Your task to perform on an android device: Open notification settings Image 0: 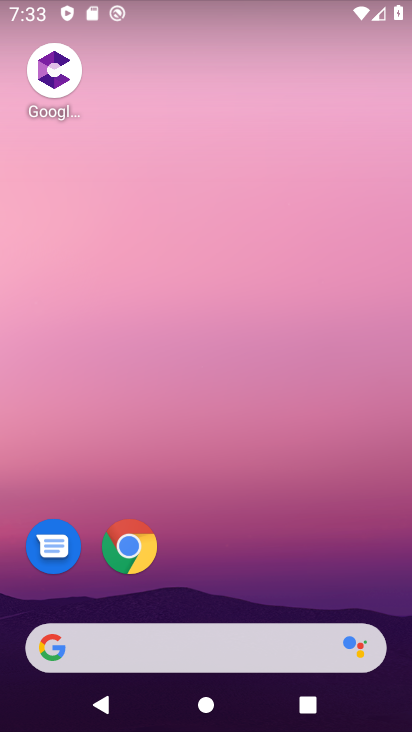
Step 0: drag from (178, 539) to (179, 414)
Your task to perform on an android device: Open notification settings Image 1: 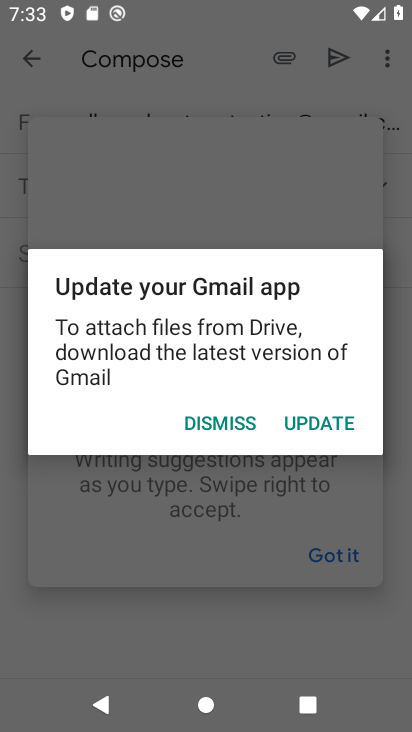
Step 1: drag from (272, 540) to (282, 30)
Your task to perform on an android device: Open notification settings Image 2: 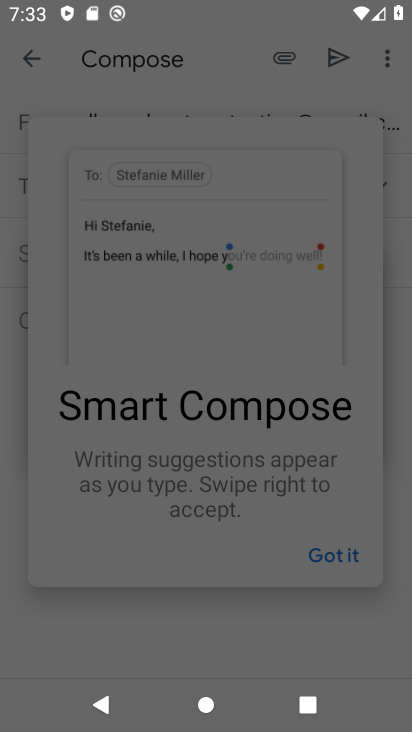
Step 2: press home button
Your task to perform on an android device: Open notification settings Image 3: 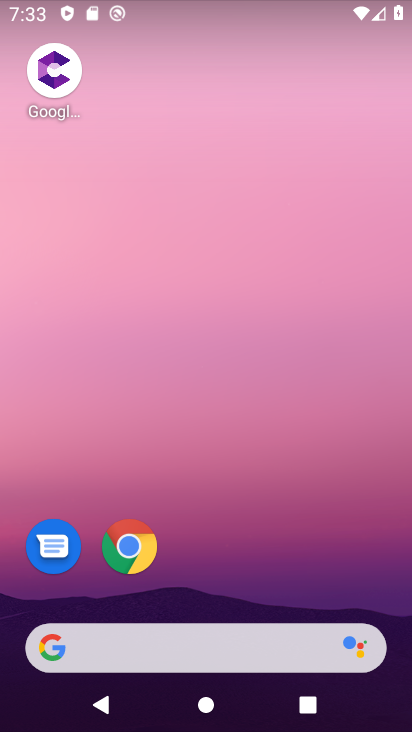
Step 3: drag from (233, 587) to (234, 90)
Your task to perform on an android device: Open notification settings Image 4: 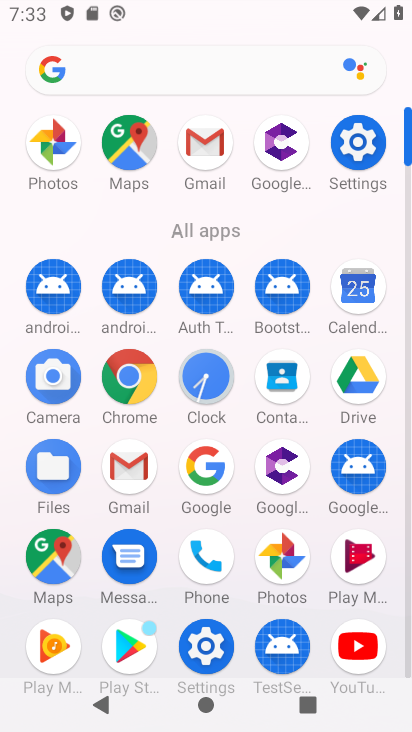
Step 4: click (194, 650)
Your task to perform on an android device: Open notification settings Image 5: 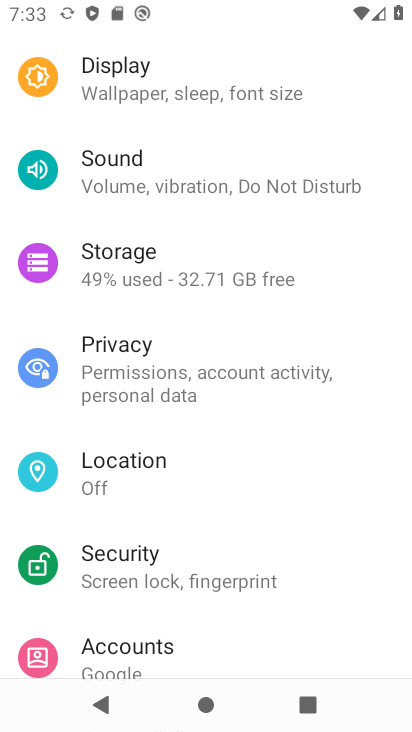
Step 5: drag from (156, 305) to (176, 709)
Your task to perform on an android device: Open notification settings Image 6: 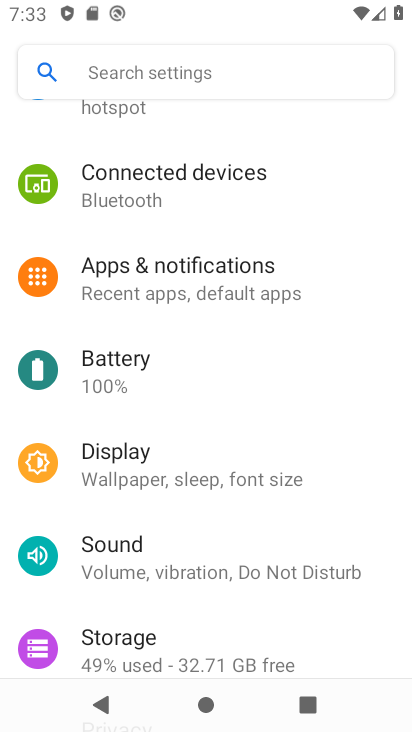
Step 6: click (171, 281)
Your task to perform on an android device: Open notification settings Image 7: 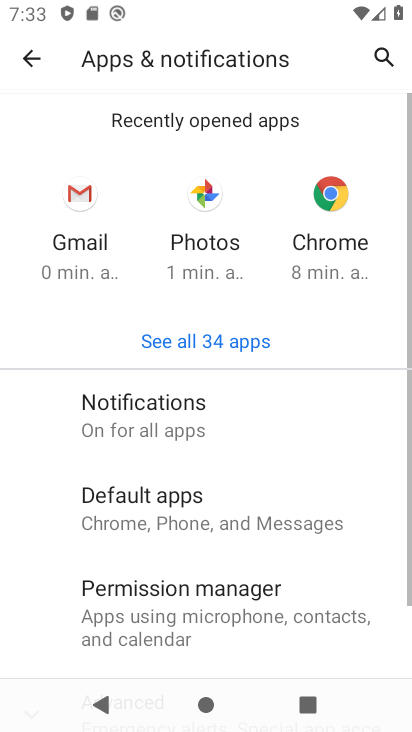
Step 7: click (174, 423)
Your task to perform on an android device: Open notification settings Image 8: 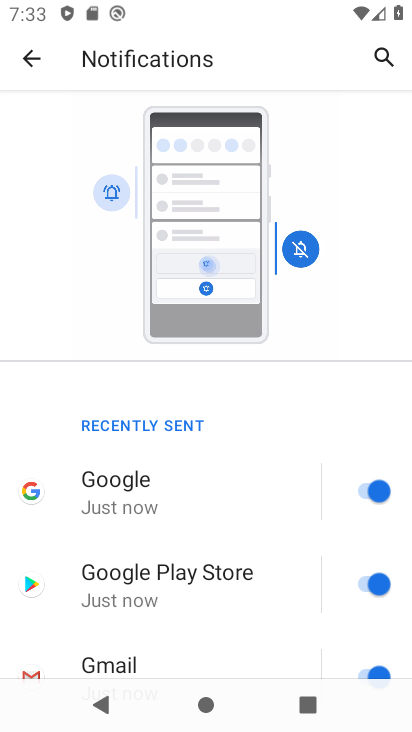
Step 8: task complete